Your task to perform on an android device: Open Google Maps Image 0: 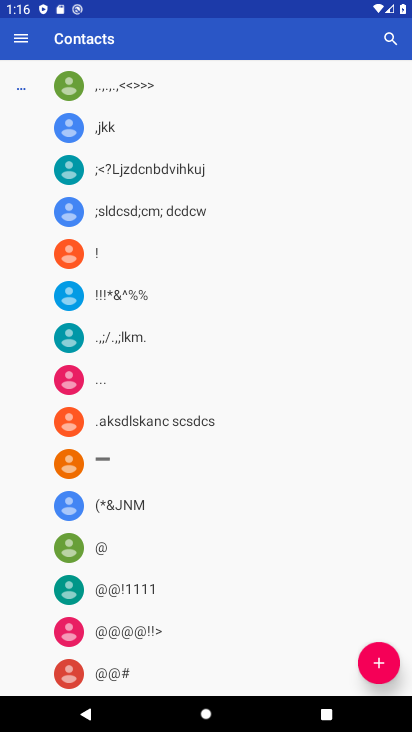
Step 0: press home button
Your task to perform on an android device: Open Google Maps Image 1: 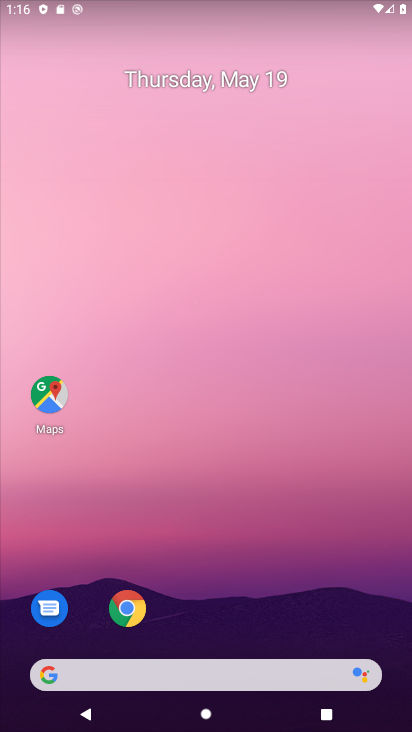
Step 1: drag from (297, 603) to (344, 239)
Your task to perform on an android device: Open Google Maps Image 2: 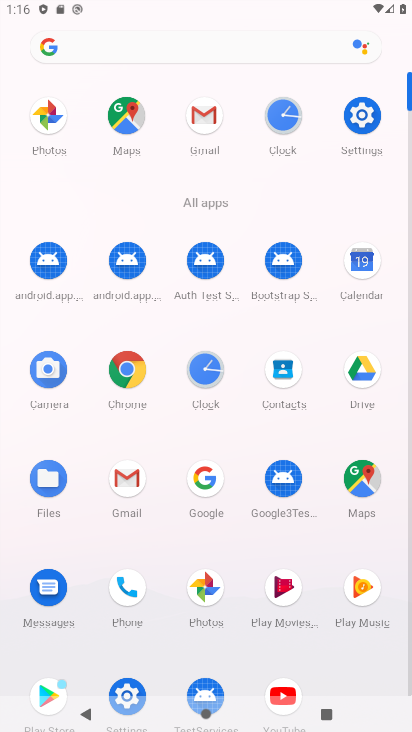
Step 2: click (104, 119)
Your task to perform on an android device: Open Google Maps Image 3: 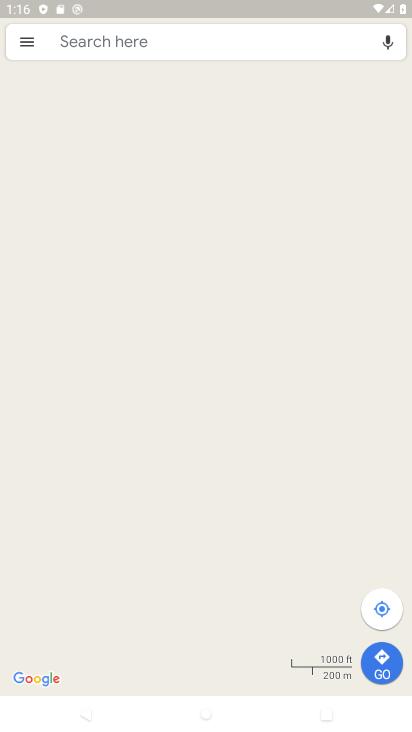
Step 3: task complete